Your task to perform on an android device: choose inbox layout in the gmail app Image 0: 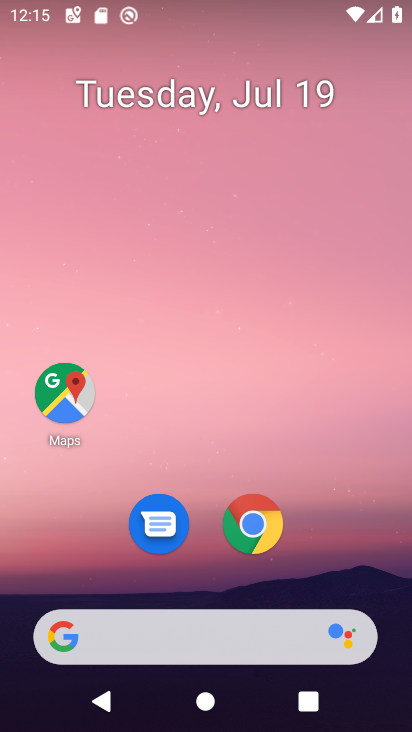
Step 0: drag from (214, 451) to (238, 0)
Your task to perform on an android device: choose inbox layout in the gmail app Image 1: 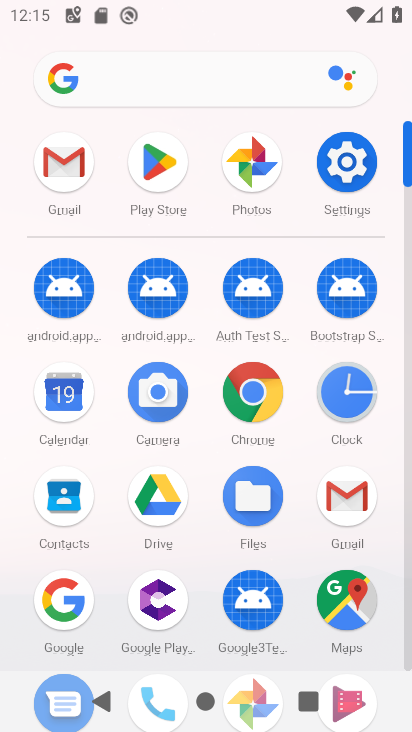
Step 1: click (71, 173)
Your task to perform on an android device: choose inbox layout in the gmail app Image 2: 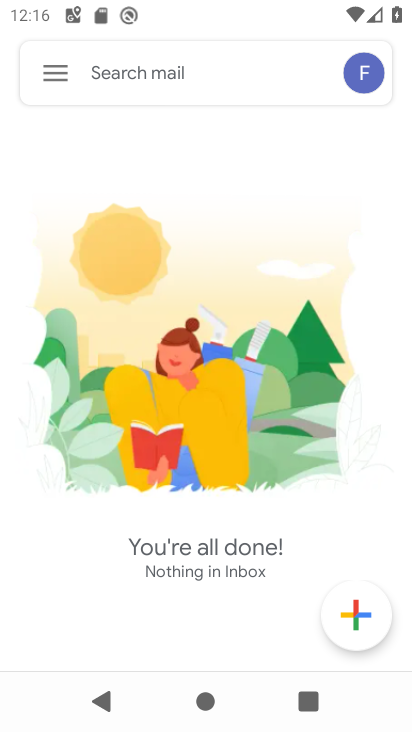
Step 2: press home button
Your task to perform on an android device: choose inbox layout in the gmail app Image 3: 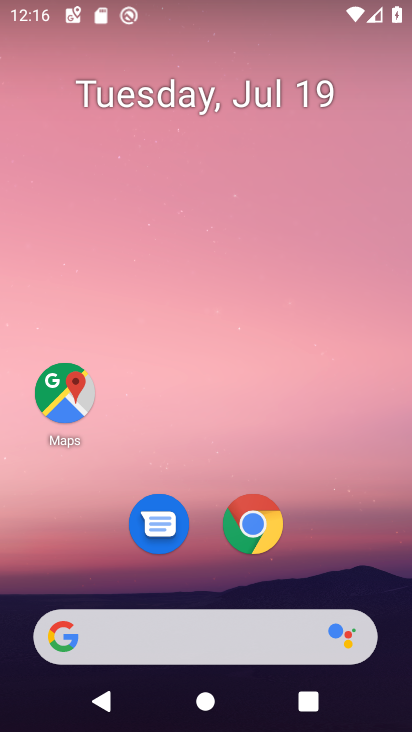
Step 3: drag from (318, 541) to (336, 99)
Your task to perform on an android device: choose inbox layout in the gmail app Image 4: 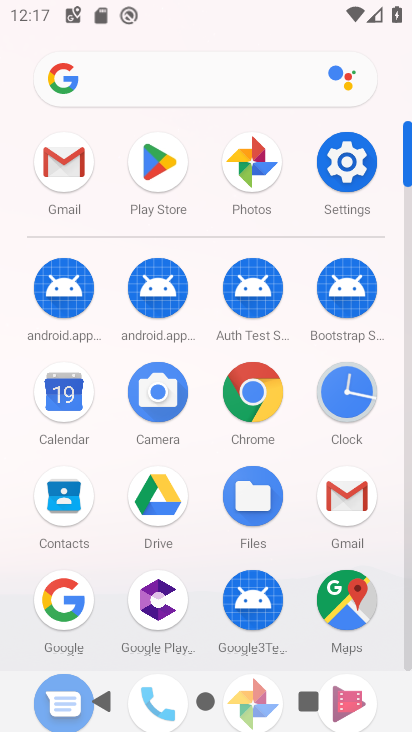
Step 4: click (80, 162)
Your task to perform on an android device: choose inbox layout in the gmail app Image 5: 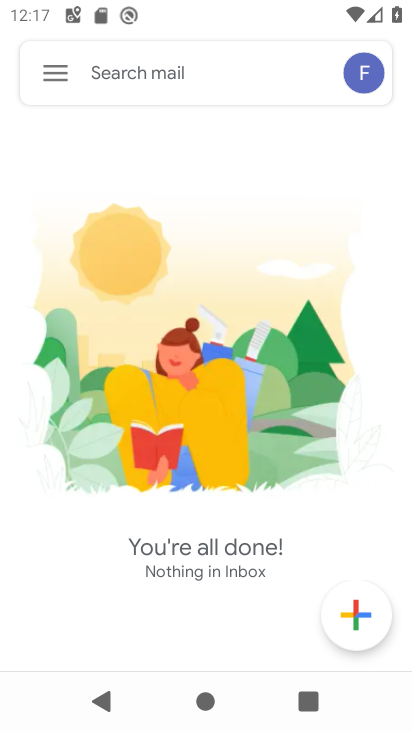
Step 5: click (53, 71)
Your task to perform on an android device: choose inbox layout in the gmail app Image 6: 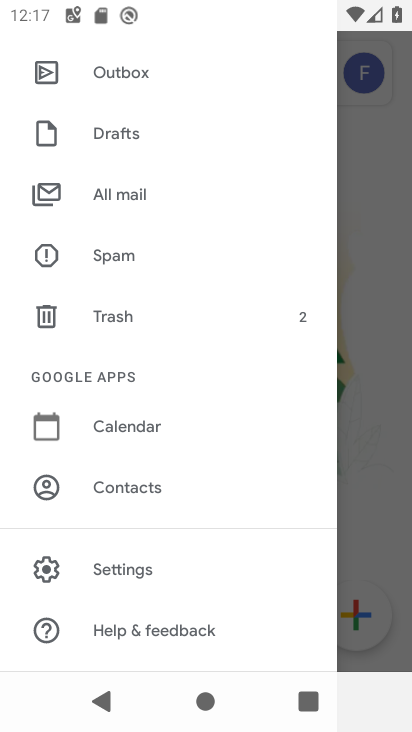
Step 6: click (123, 562)
Your task to perform on an android device: choose inbox layout in the gmail app Image 7: 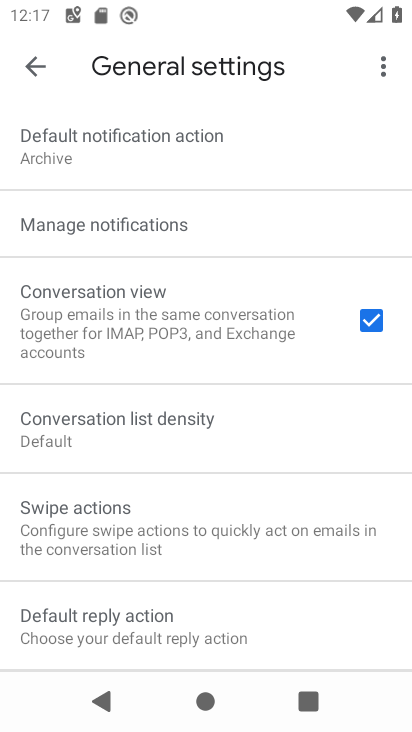
Step 7: drag from (220, 572) to (244, 417)
Your task to perform on an android device: choose inbox layout in the gmail app Image 8: 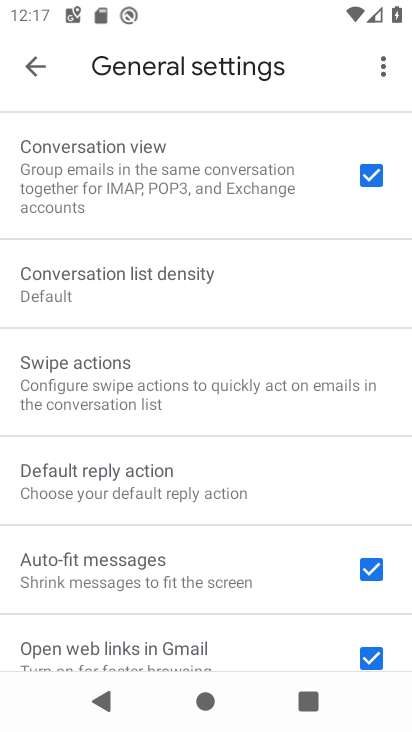
Step 8: click (41, 64)
Your task to perform on an android device: choose inbox layout in the gmail app Image 9: 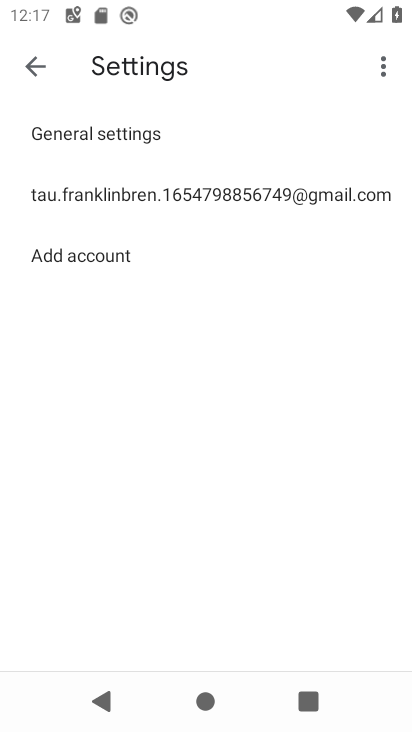
Step 9: click (122, 197)
Your task to perform on an android device: choose inbox layout in the gmail app Image 10: 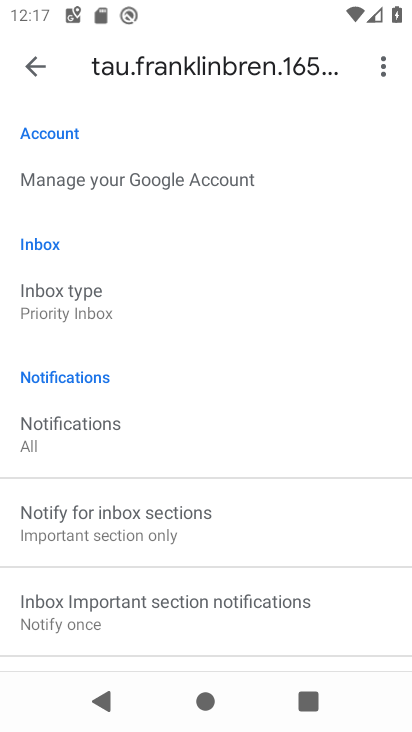
Step 10: click (91, 294)
Your task to perform on an android device: choose inbox layout in the gmail app Image 11: 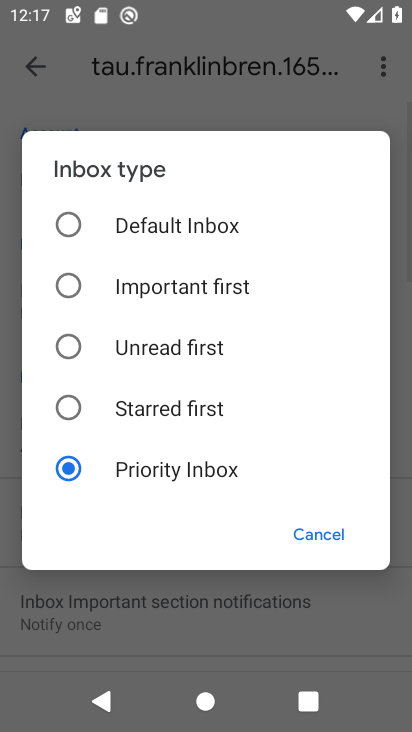
Step 11: click (72, 219)
Your task to perform on an android device: choose inbox layout in the gmail app Image 12: 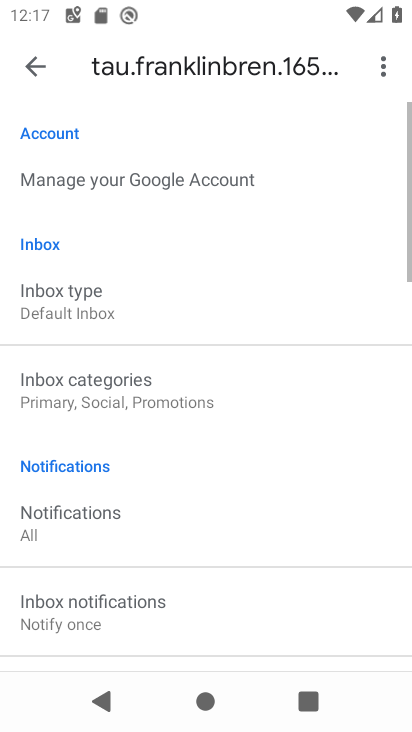
Step 12: task complete